Your task to perform on an android device: check data usage Image 0: 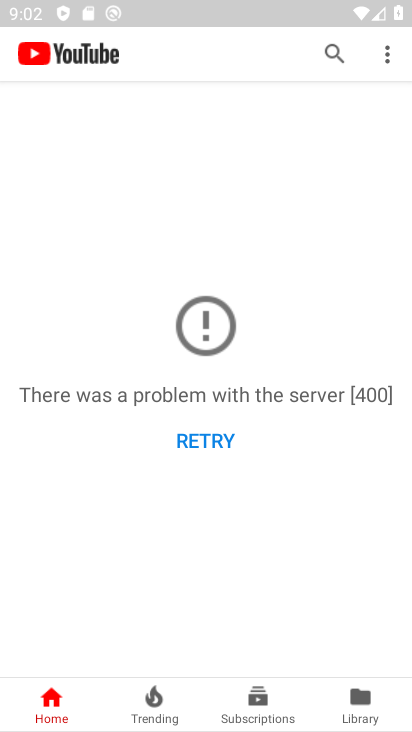
Step 0: press home button
Your task to perform on an android device: check data usage Image 1: 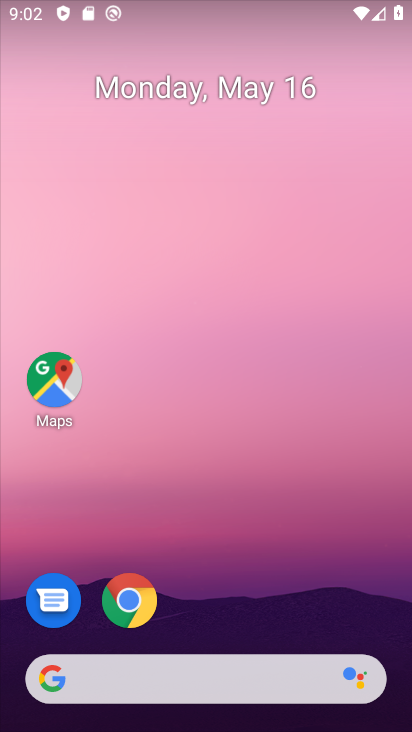
Step 1: drag from (181, 620) to (160, 185)
Your task to perform on an android device: check data usage Image 2: 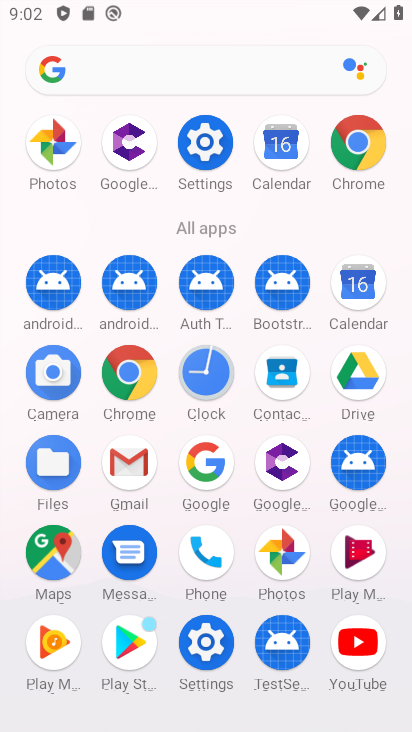
Step 2: click (199, 151)
Your task to perform on an android device: check data usage Image 3: 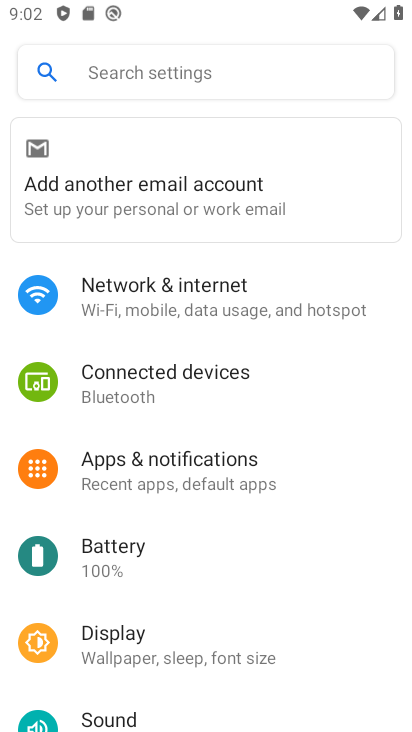
Step 3: click (136, 300)
Your task to perform on an android device: check data usage Image 4: 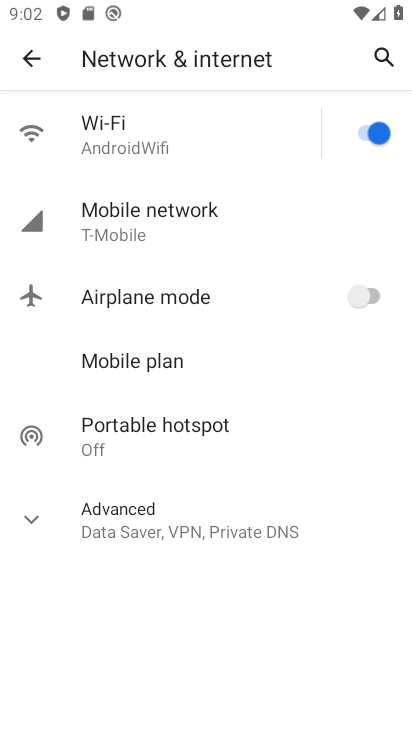
Step 4: click (135, 242)
Your task to perform on an android device: check data usage Image 5: 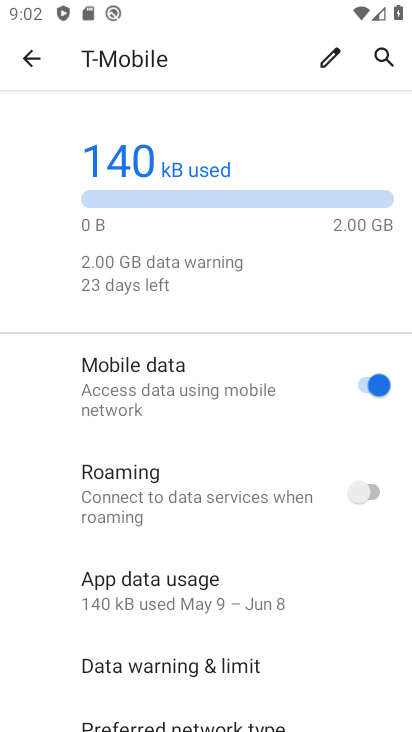
Step 5: task complete